Your task to perform on an android device: find which apps use the phone's location Image 0: 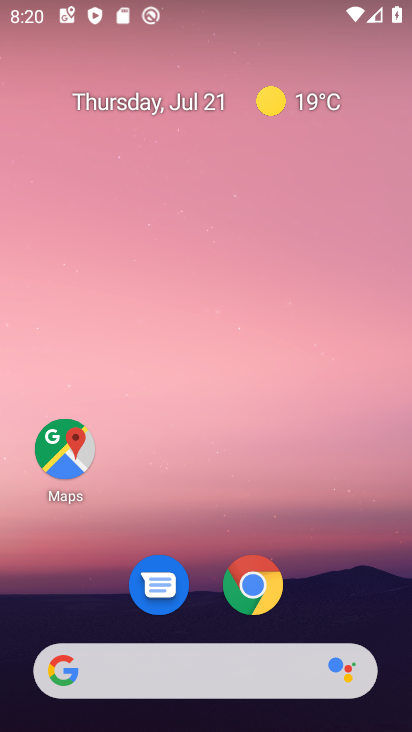
Step 0: drag from (312, 563) to (314, 59)
Your task to perform on an android device: find which apps use the phone's location Image 1: 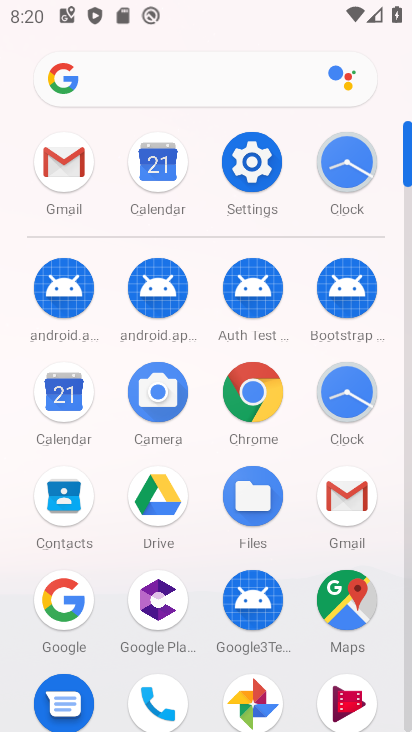
Step 1: click (261, 159)
Your task to perform on an android device: find which apps use the phone's location Image 2: 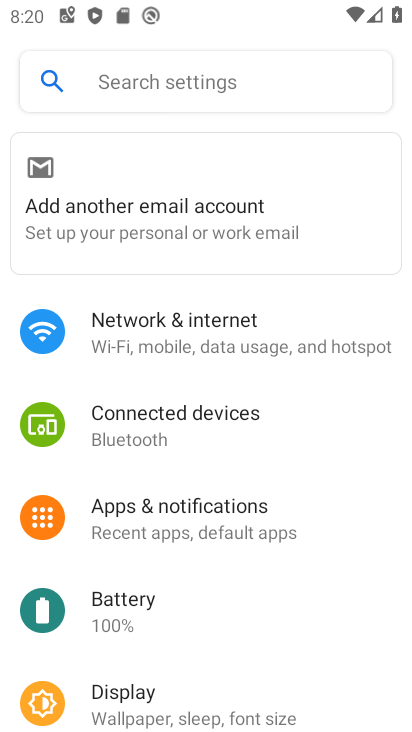
Step 2: drag from (225, 566) to (249, 216)
Your task to perform on an android device: find which apps use the phone's location Image 3: 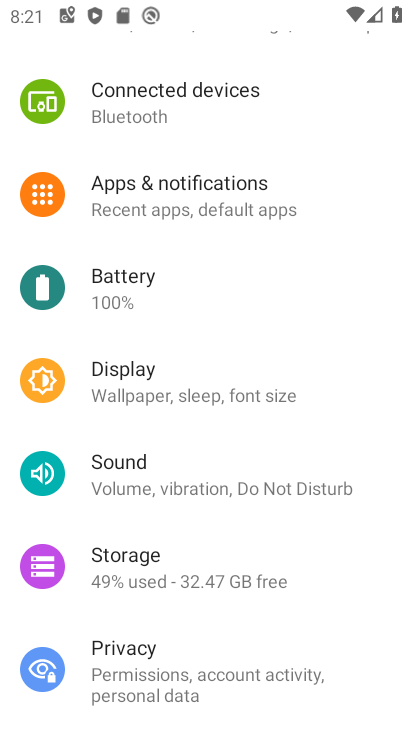
Step 3: drag from (233, 551) to (251, 196)
Your task to perform on an android device: find which apps use the phone's location Image 4: 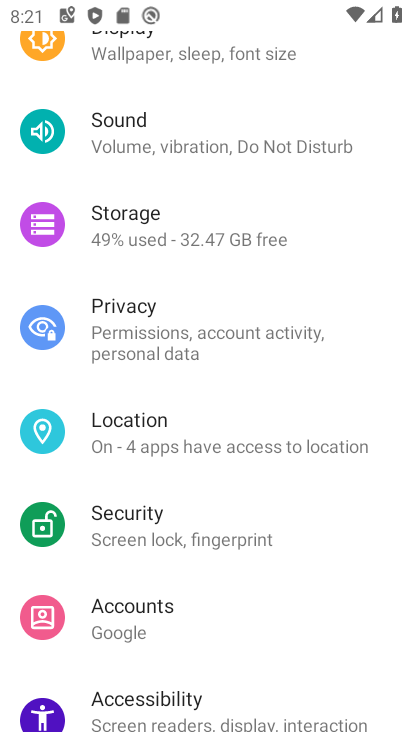
Step 4: click (224, 434)
Your task to perform on an android device: find which apps use the phone's location Image 5: 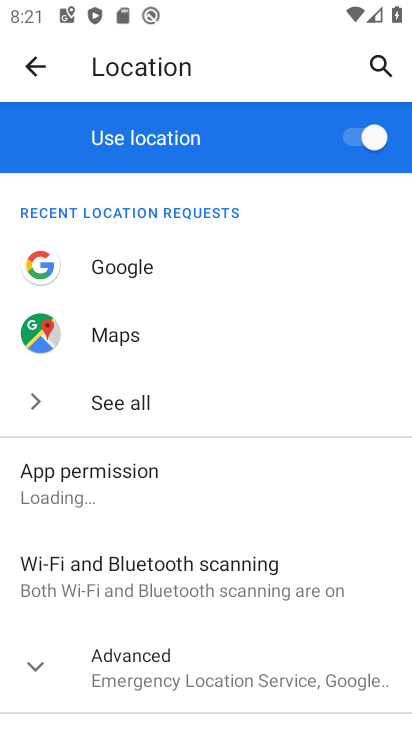
Step 5: click (139, 486)
Your task to perform on an android device: find which apps use the phone's location Image 6: 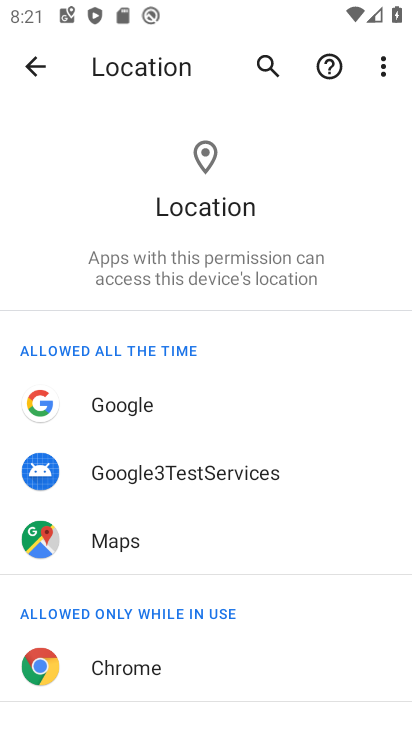
Step 6: task complete